Your task to perform on an android device: move an email to a new category in the gmail app Image 0: 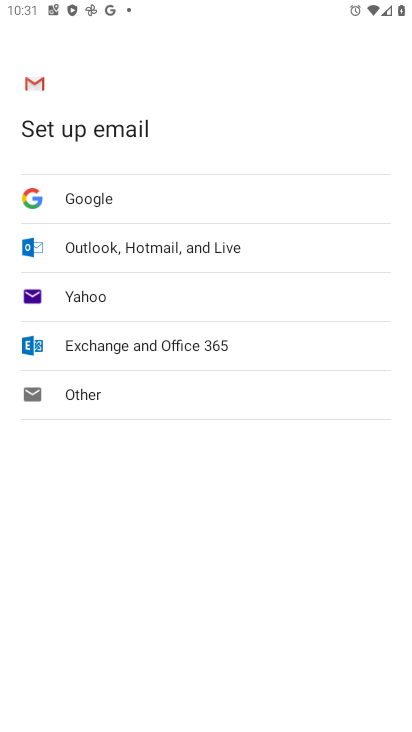
Step 0: press home button
Your task to perform on an android device: move an email to a new category in the gmail app Image 1: 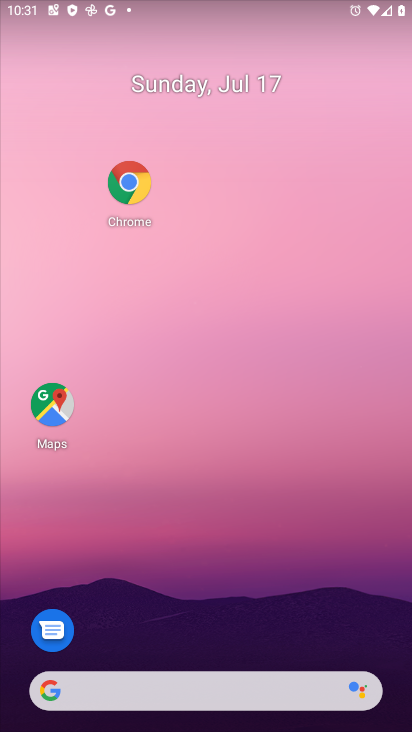
Step 1: drag from (184, 176) to (191, 72)
Your task to perform on an android device: move an email to a new category in the gmail app Image 2: 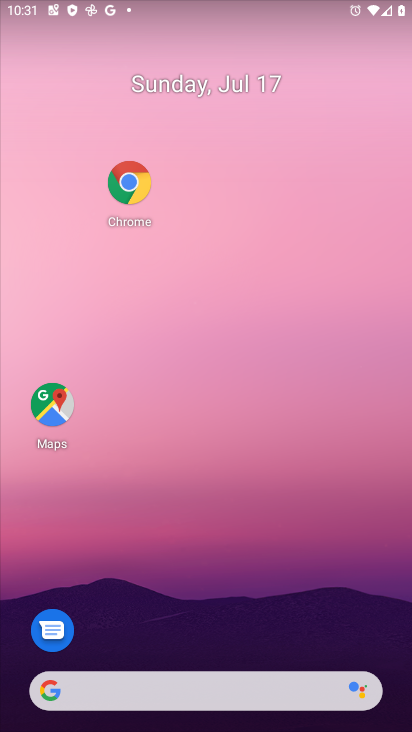
Step 2: drag from (199, 311) to (164, 8)
Your task to perform on an android device: move an email to a new category in the gmail app Image 3: 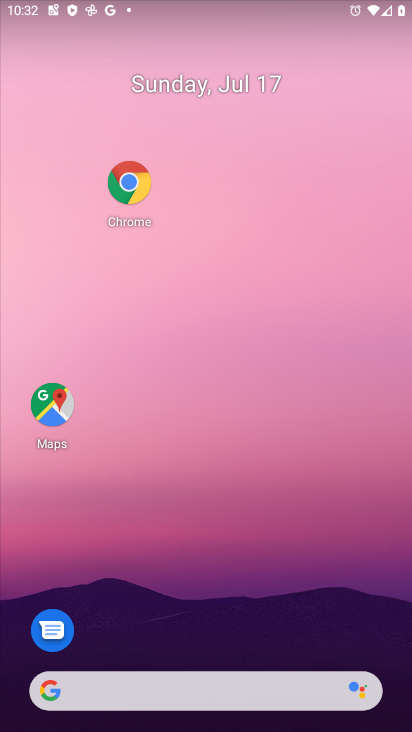
Step 3: drag from (211, 19) to (161, 15)
Your task to perform on an android device: move an email to a new category in the gmail app Image 4: 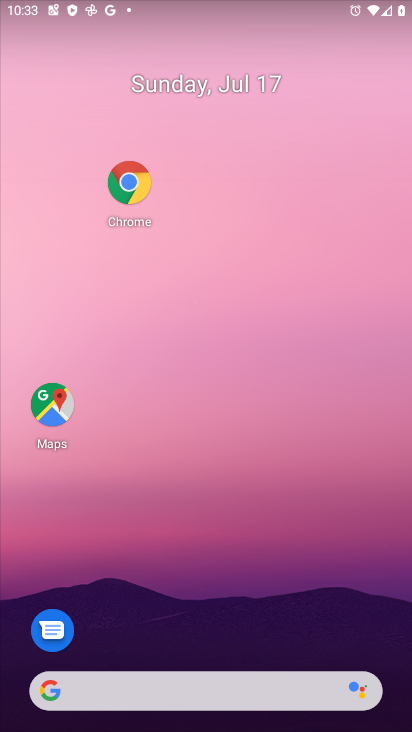
Step 4: drag from (203, 527) to (209, 6)
Your task to perform on an android device: move an email to a new category in the gmail app Image 5: 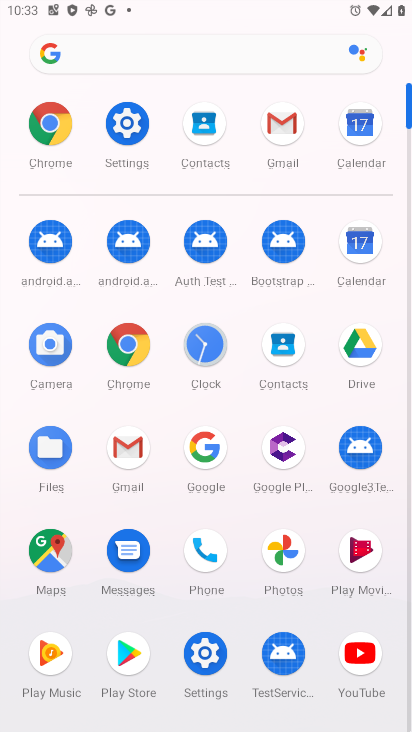
Step 5: click (291, 124)
Your task to perform on an android device: move an email to a new category in the gmail app Image 6: 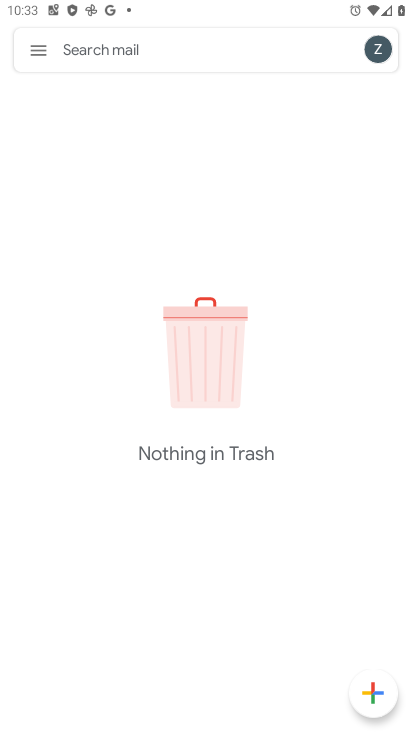
Step 6: click (41, 49)
Your task to perform on an android device: move an email to a new category in the gmail app Image 7: 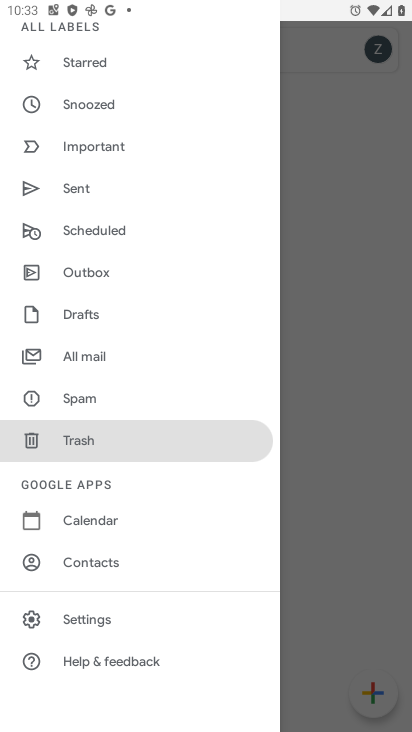
Step 7: click (91, 356)
Your task to perform on an android device: move an email to a new category in the gmail app Image 8: 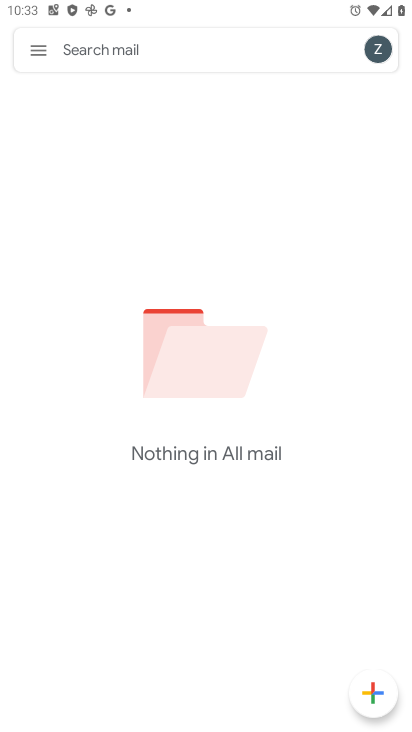
Step 8: task complete